Your task to perform on an android device: open app "Etsy: Buy & Sell Unique Items" (install if not already installed) and enter user name: "camp@inbox.com" and password: "unrelated" Image 0: 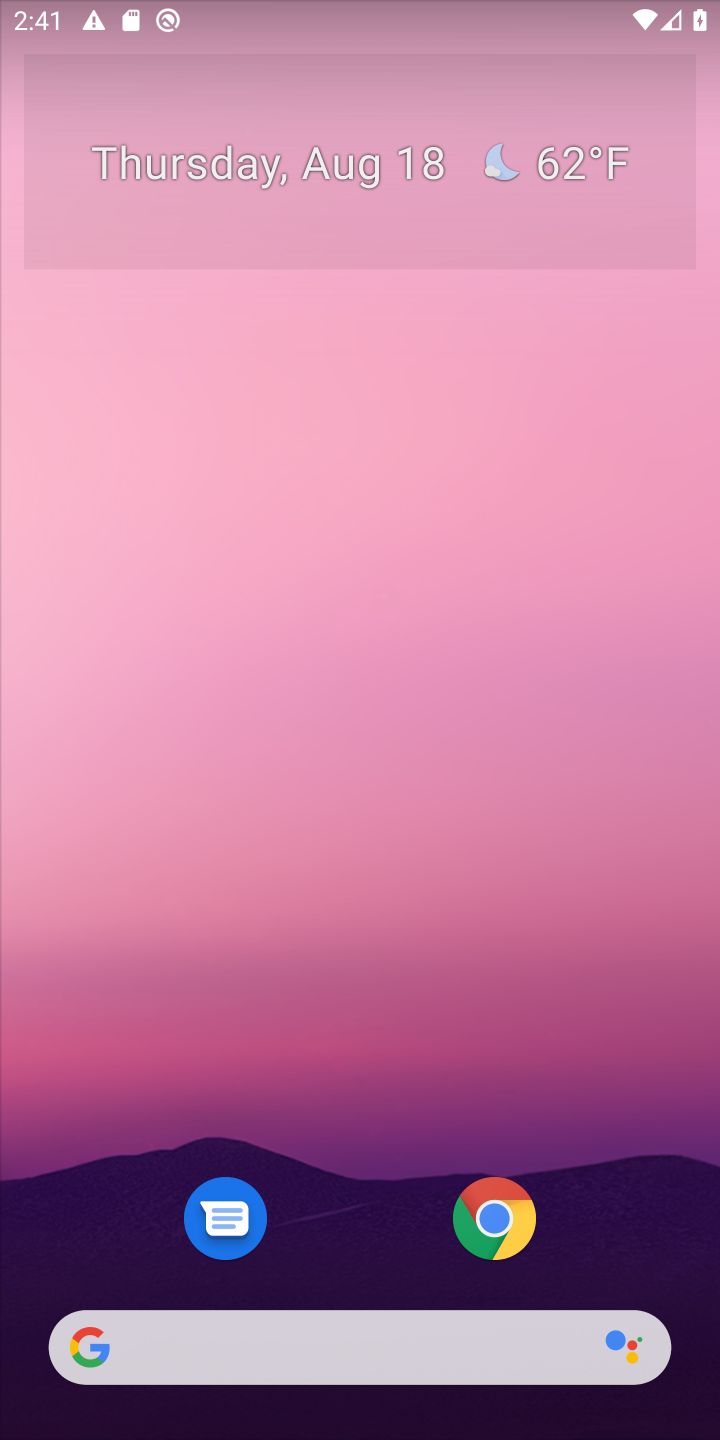
Step 0: drag from (354, 886) to (405, 382)
Your task to perform on an android device: open app "Etsy: Buy & Sell Unique Items" (install if not already installed) and enter user name: "camp@inbox.com" and password: "unrelated" Image 1: 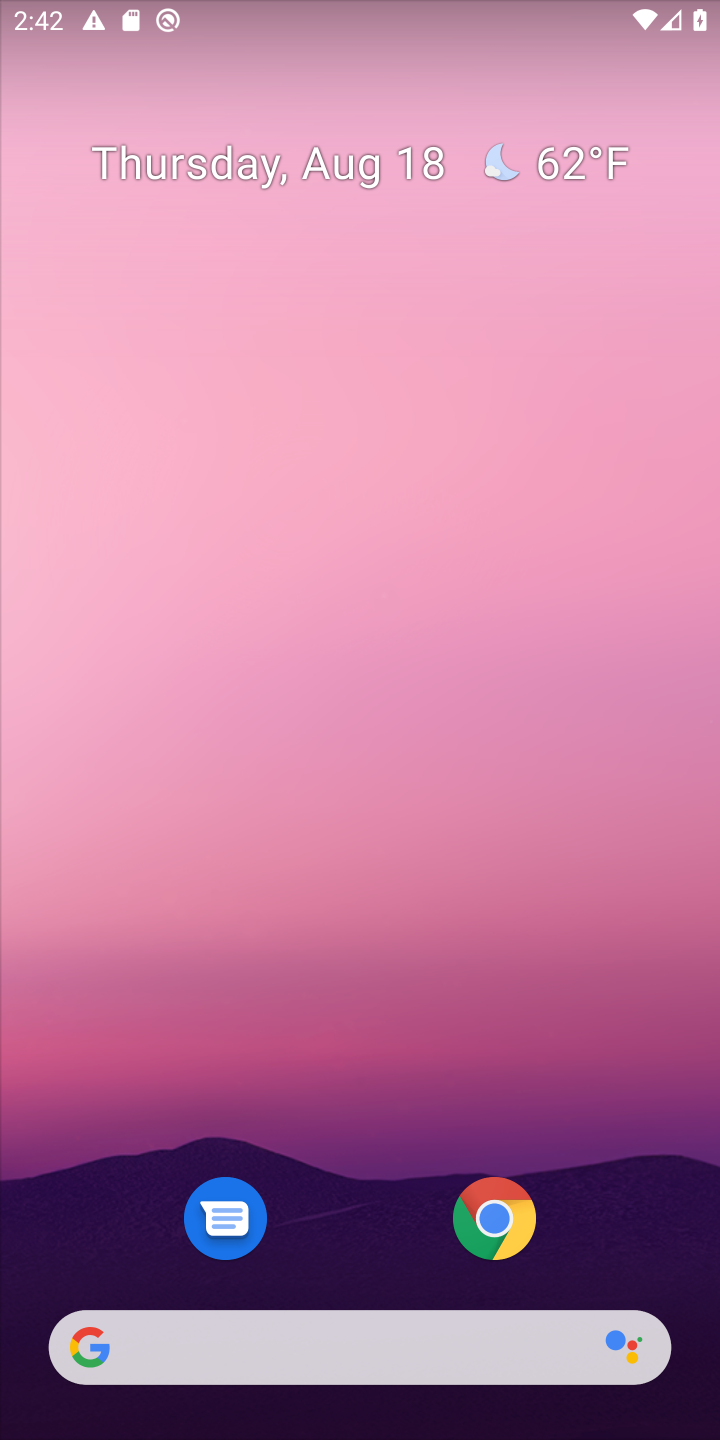
Step 1: drag from (370, 1015) to (388, 390)
Your task to perform on an android device: open app "Etsy: Buy & Sell Unique Items" (install if not already installed) and enter user name: "camp@inbox.com" and password: "unrelated" Image 2: 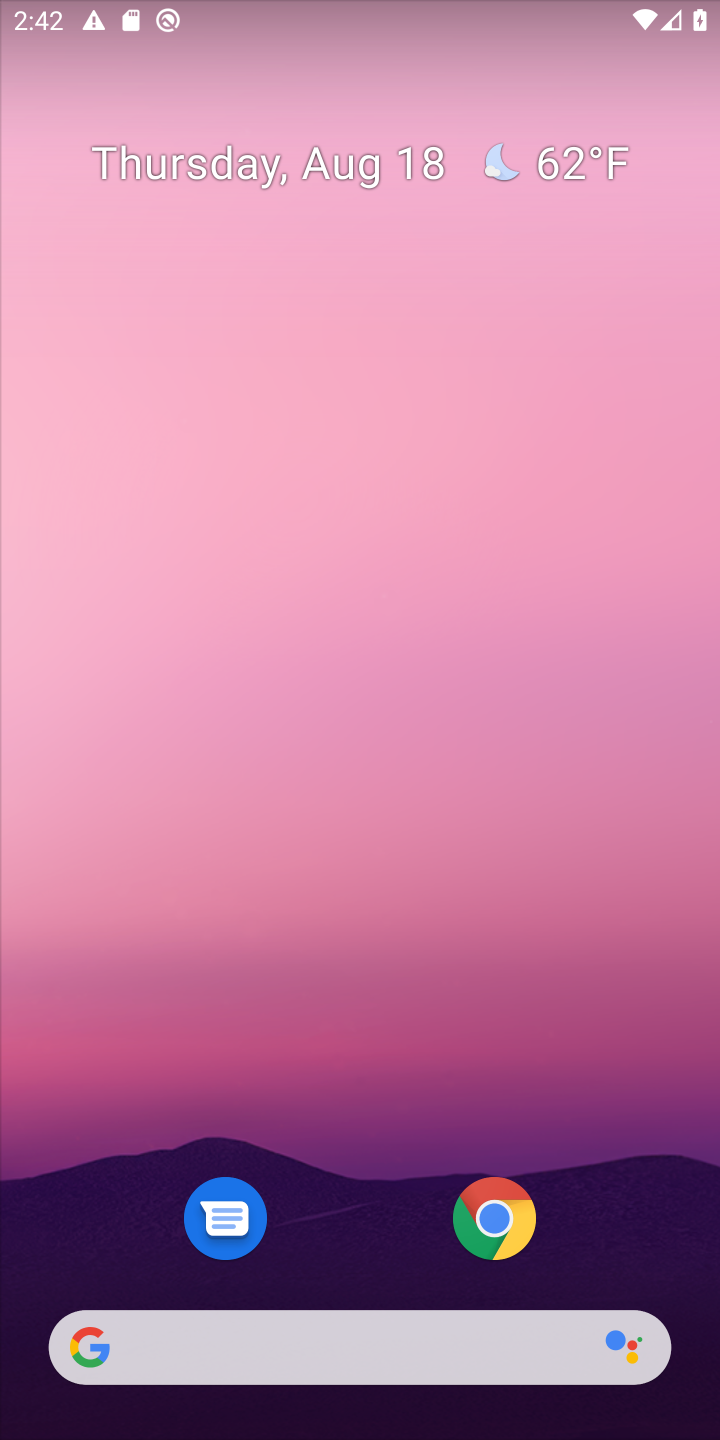
Step 2: drag from (366, 767) to (402, 213)
Your task to perform on an android device: open app "Etsy: Buy & Sell Unique Items" (install if not already installed) and enter user name: "camp@inbox.com" and password: "unrelated" Image 3: 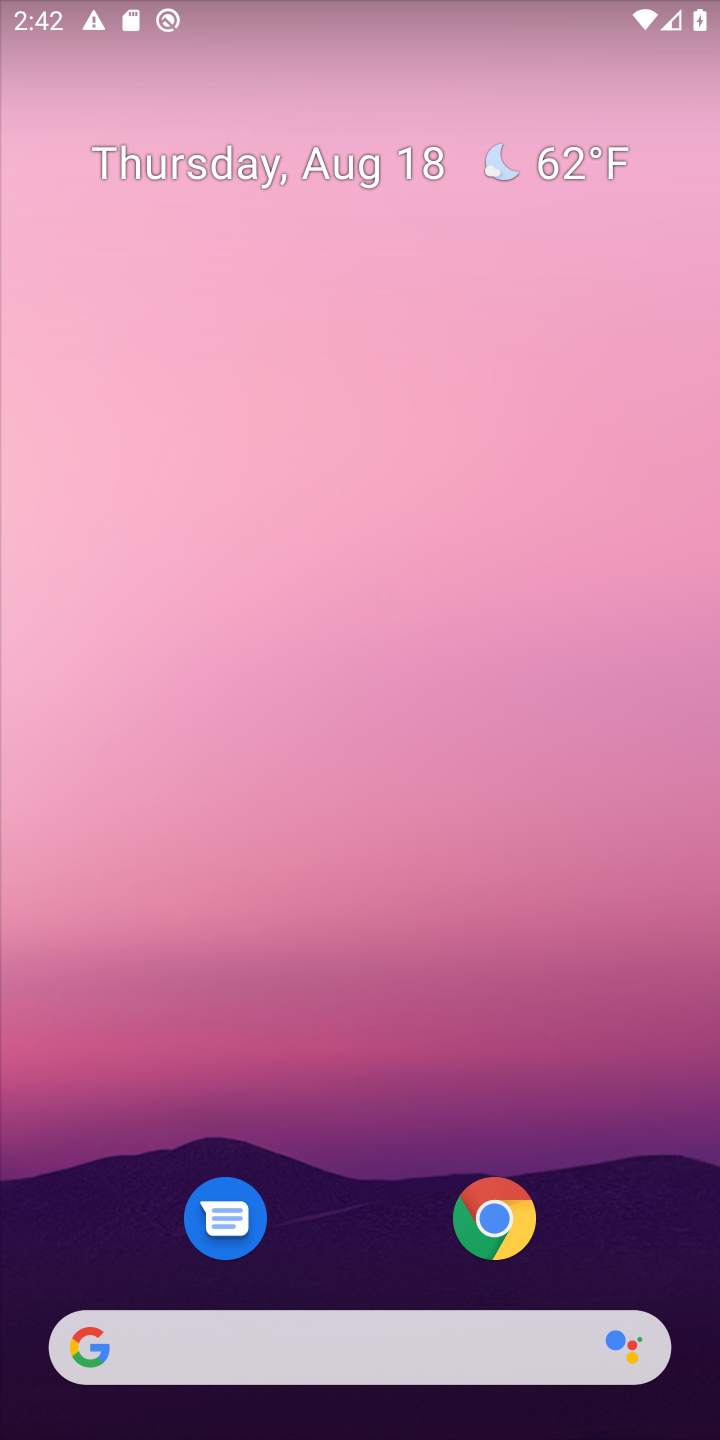
Step 3: drag from (371, 1034) to (397, 188)
Your task to perform on an android device: open app "Etsy: Buy & Sell Unique Items" (install if not already installed) and enter user name: "camp@inbox.com" and password: "unrelated" Image 4: 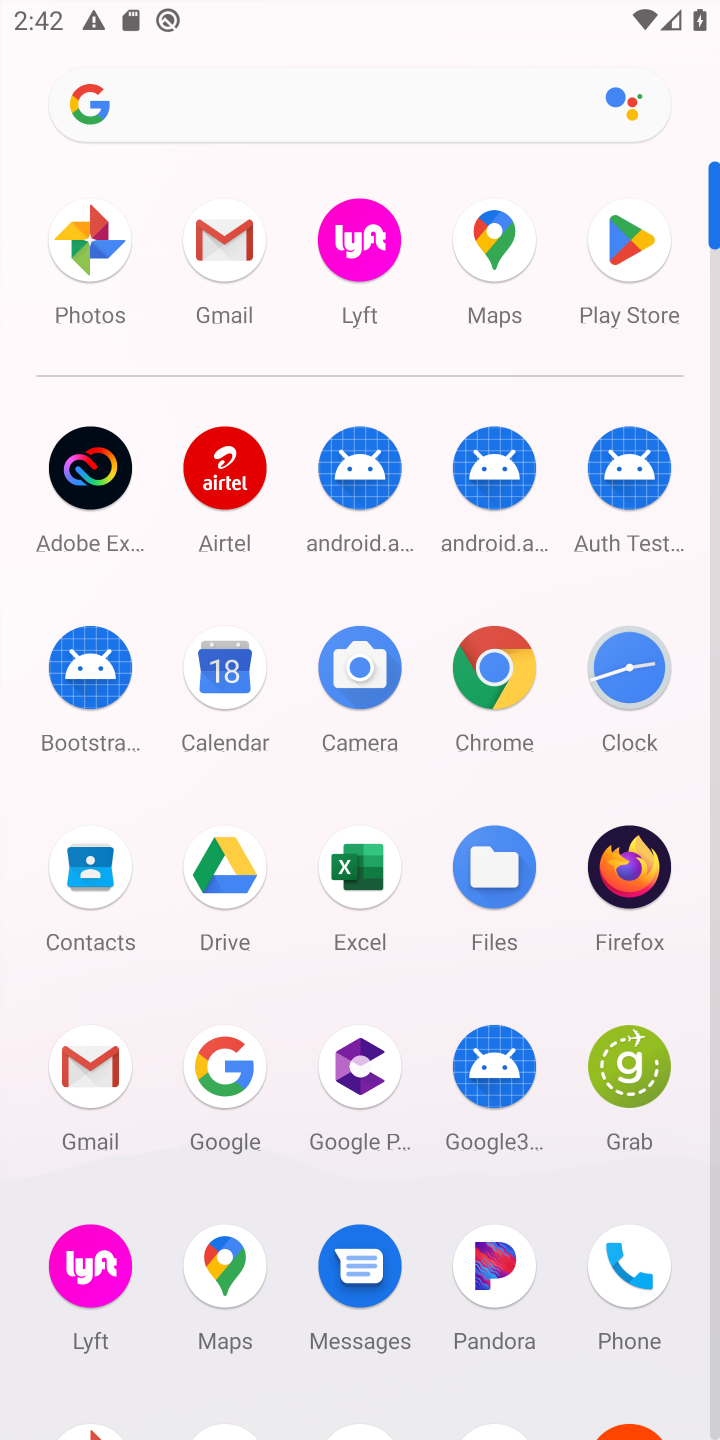
Step 4: click (631, 221)
Your task to perform on an android device: open app "Etsy: Buy & Sell Unique Items" (install if not already installed) and enter user name: "camp@inbox.com" and password: "unrelated" Image 5: 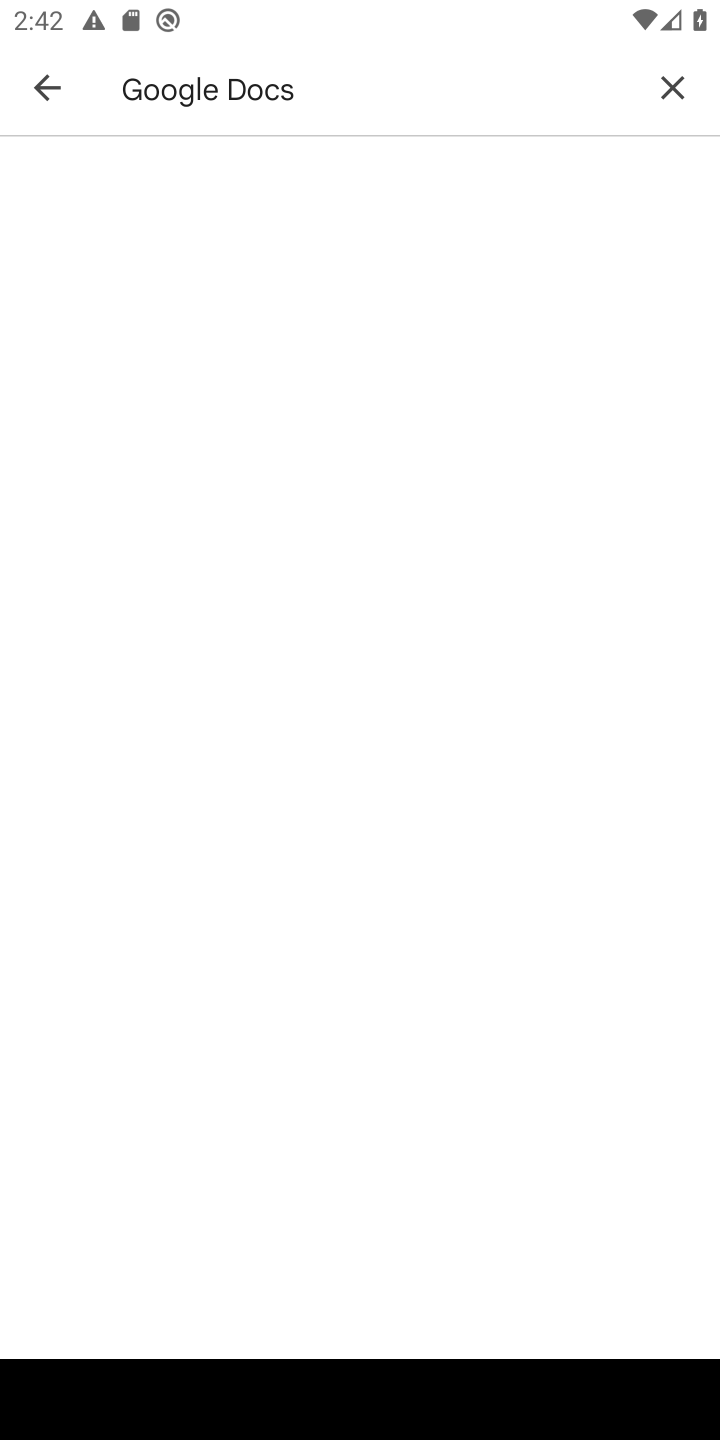
Step 5: click (669, 76)
Your task to perform on an android device: open app "Etsy: Buy & Sell Unique Items" (install if not already installed) and enter user name: "camp@inbox.com" and password: "unrelated" Image 6: 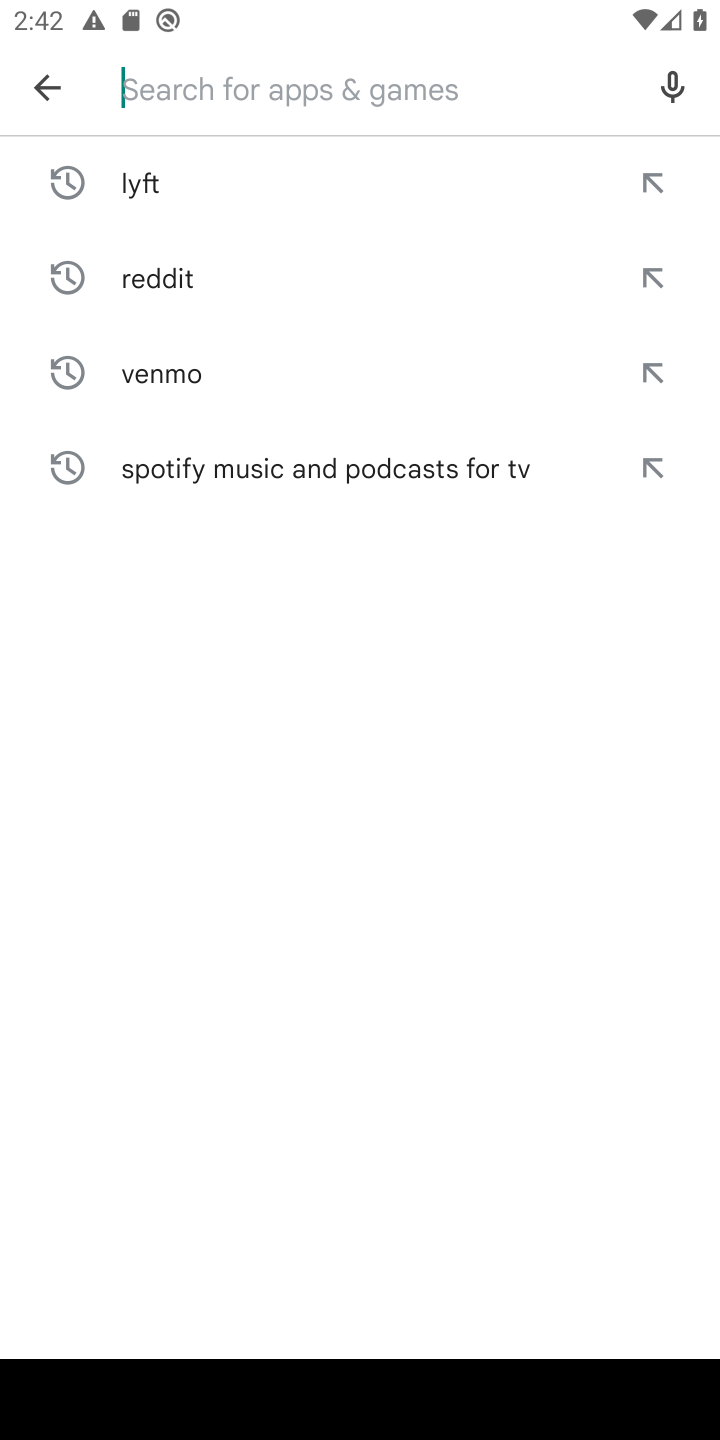
Step 6: type "Etsy: Buy & Sell Unique Items"
Your task to perform on an android device: open app "Etsy: Buy & Sell Unique Items" (install if not already installed) and enter user name: "camp@inbox.com" and password: "unrelated" Image 7: 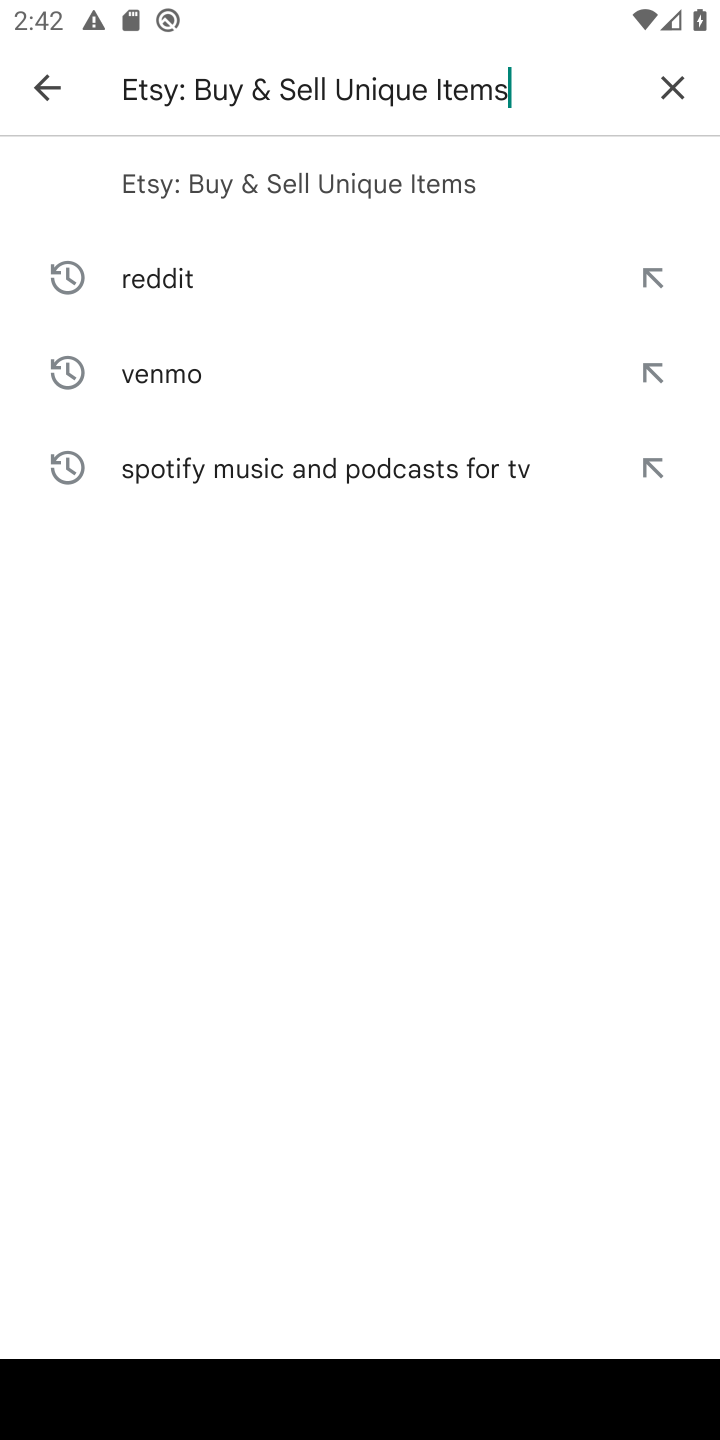
Step 7: type ""
Your task to perform on an android device: open app "Etsy: Buy & Sell Unique Items" (install if not already installed) and enter user name: "camp@inbox.com" and password: "unrelated" Image 8: 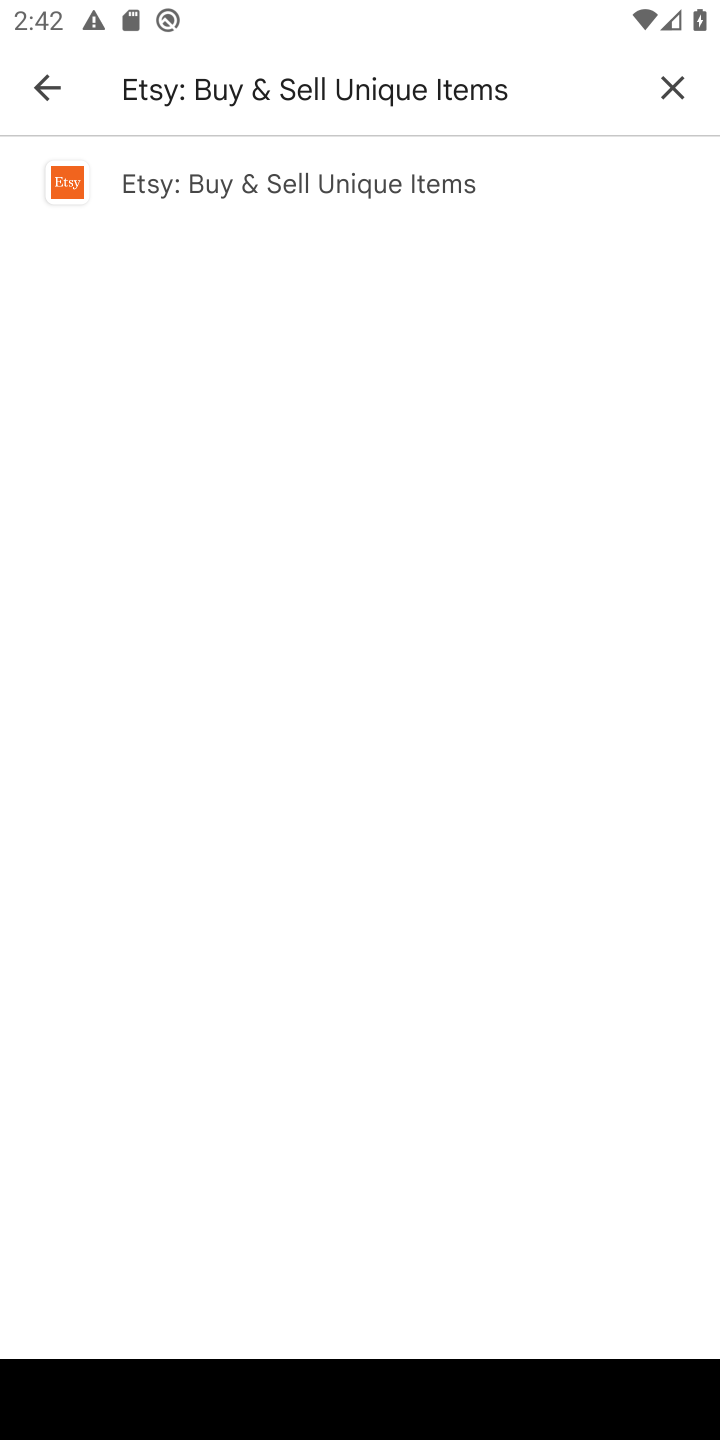
Step 8: click (229, 193)
Your task to perform on an android device: open app "Etsy: Buy & Sell Unique Items" (install if not already installed) and enter user name: "camp@inbox.com" and password: "unrelated" Image 9: 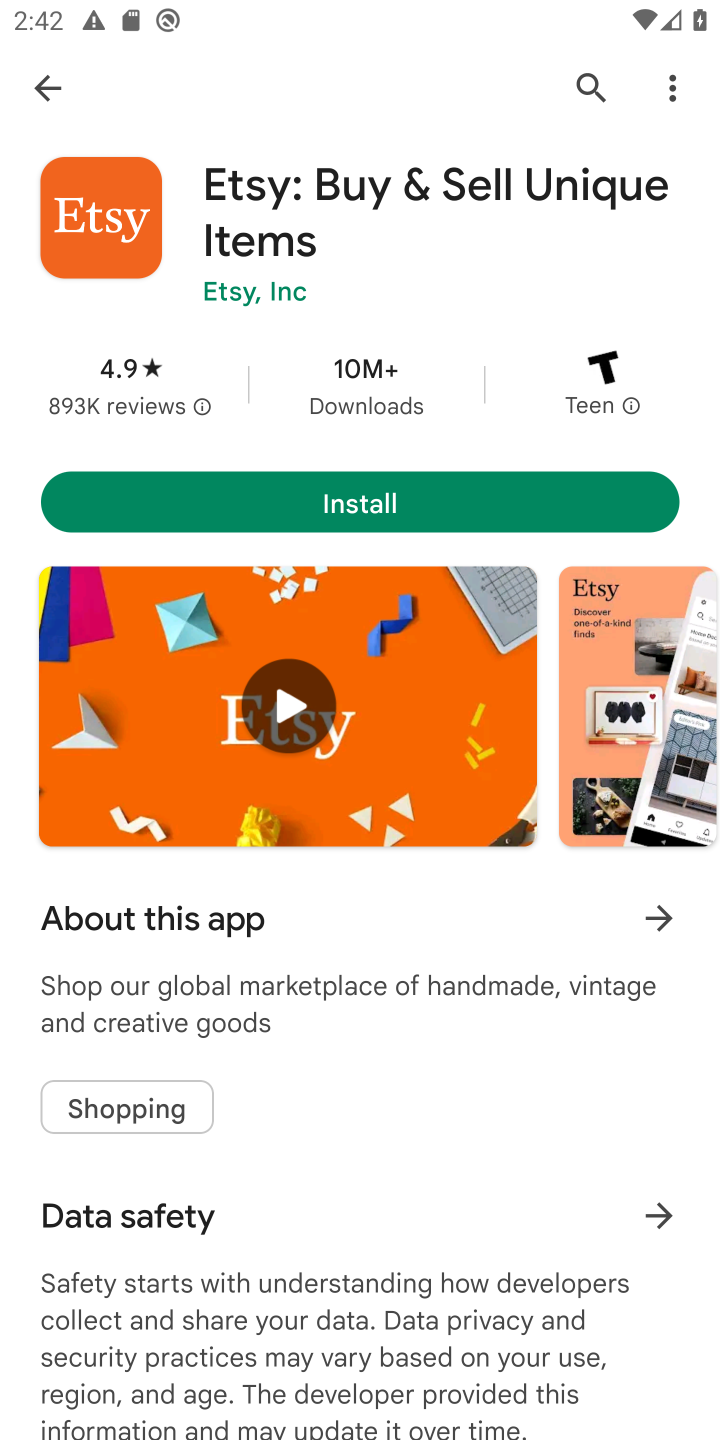
Step 9: click (358, 504)
Your task to perform on an android device: open app "Etsy: Buy & Sell Unique Items" (install if not already installed) and enter user name: "camp@inbox.com" and password: "unrelated" Image 10: 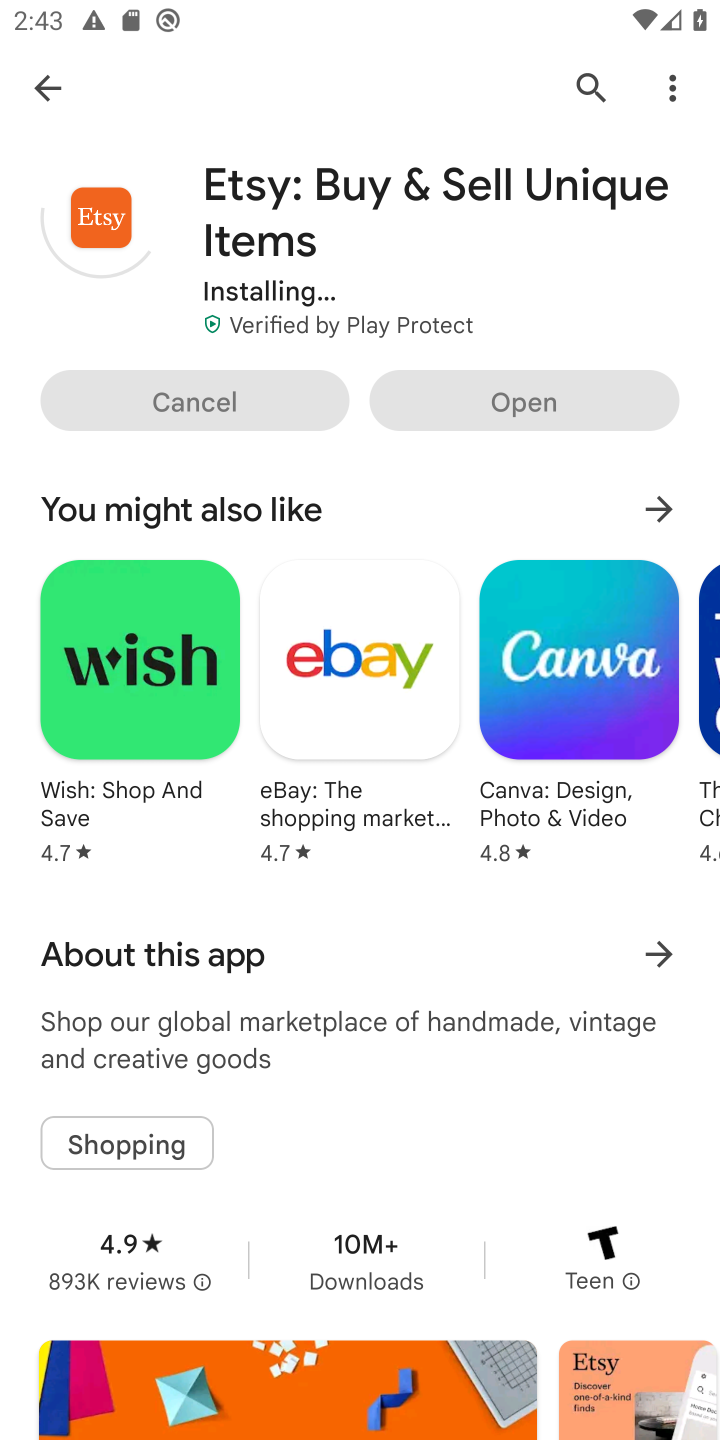
Step 10: task complete